Your task to perform on an android device: What's on my calendar tomorrow? Image 0: 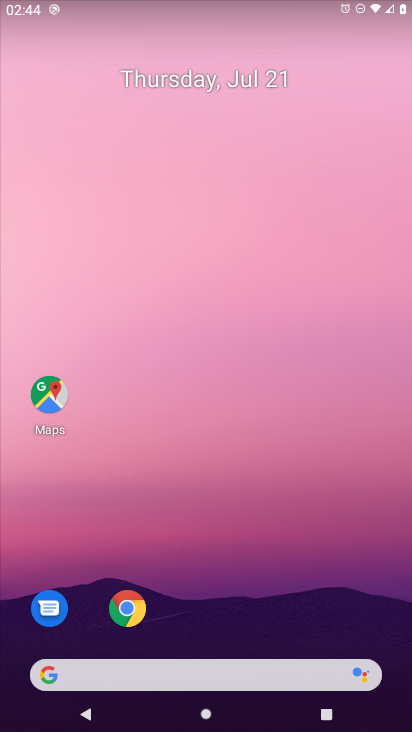
Step 0: press home button
Your task to perform on an android device: What's on my calendar tomorrow? Image 1: 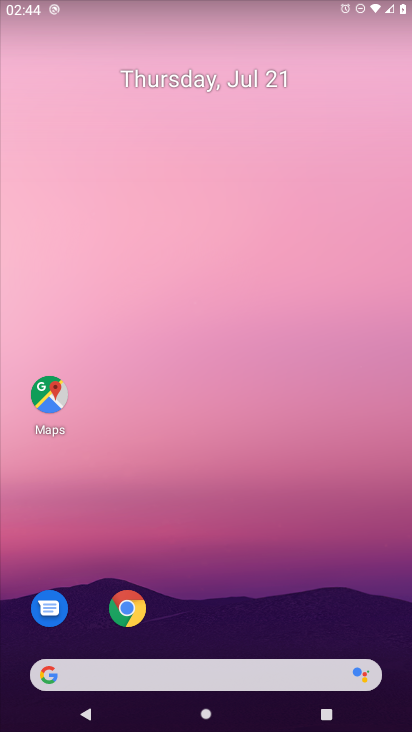
Step 1: drag from (213, 635) to (337, 6)
Your task to perform on an android device: What's on my calendar tomorrow? Image 2: 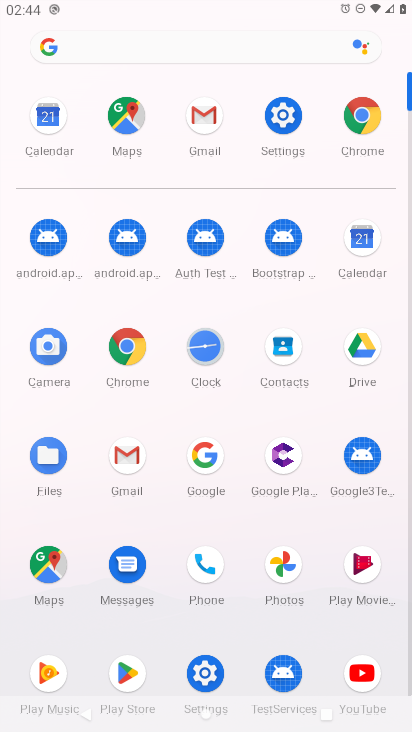
Step 2: click (369, 239)
Your task to perform on an android device: What's on my calendar tomorrow? Image 3: 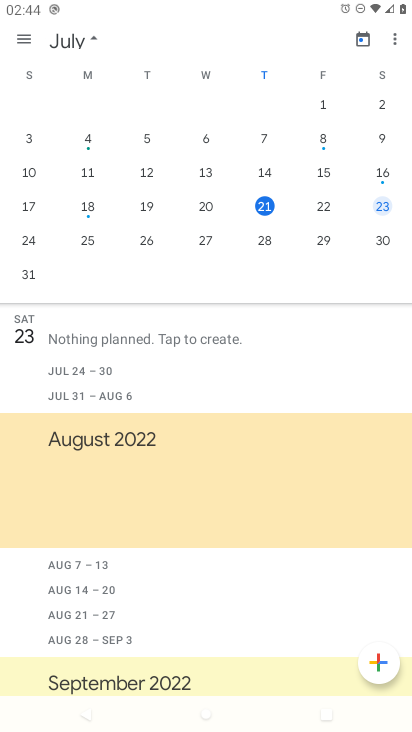
Step 3: click (322, 204)
Your task to perform on an android device: What's on my calendar tomorrow? Image 4: 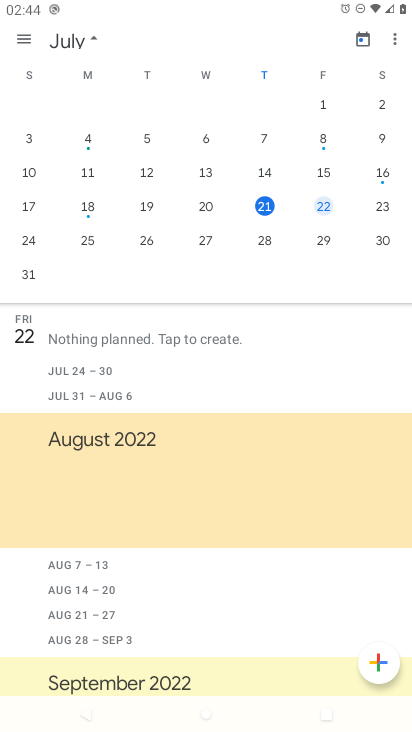
Step 4: task complete